Your task to perform on an android device: move a message to another label in the gmail app Image 0: 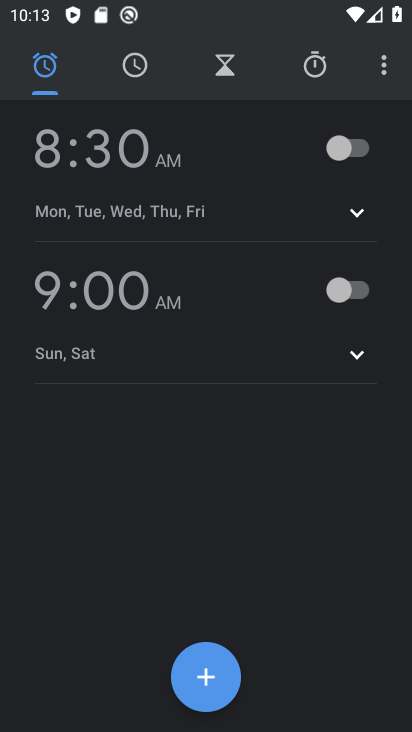
Step 0: press home button
Your task to perform on an android device: move a message to another label in the gmail app Image 1: 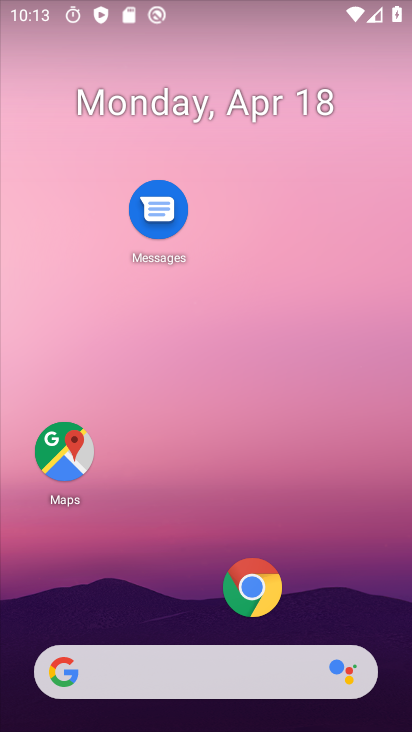
Step 1: drag from (191, 493) to (211, 3)
Your task to perform on an android device: move a message to another label in the gmail app Image 2: 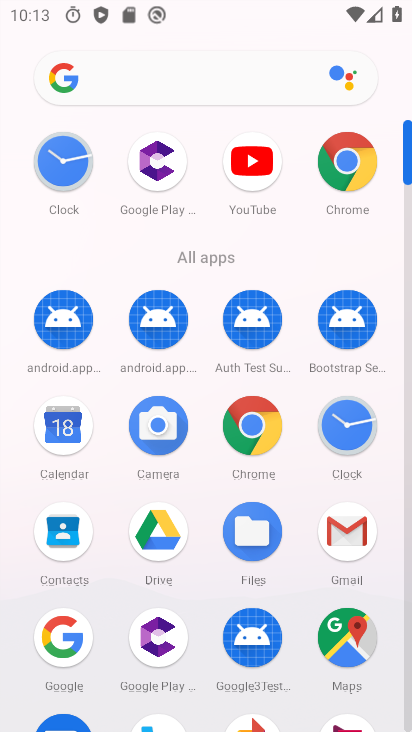
Step 2: click (337, 536)
Your task to perform on an android device: move a message to another label in the gmail app Image 3: 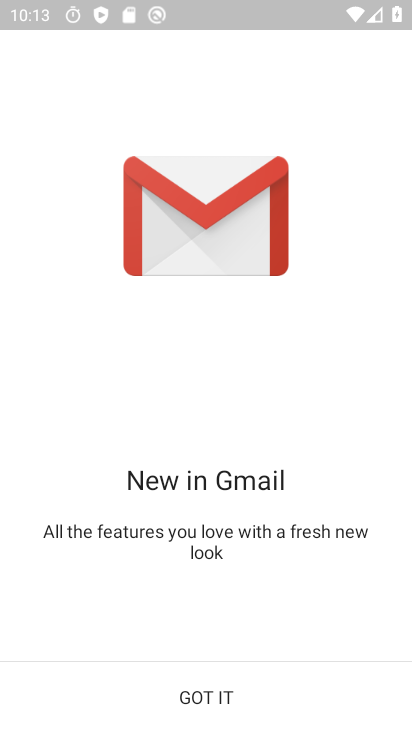
Step 3: click (192, 689)
Your task to perform on an android device: move a message to another label in the gmail app Image 4: 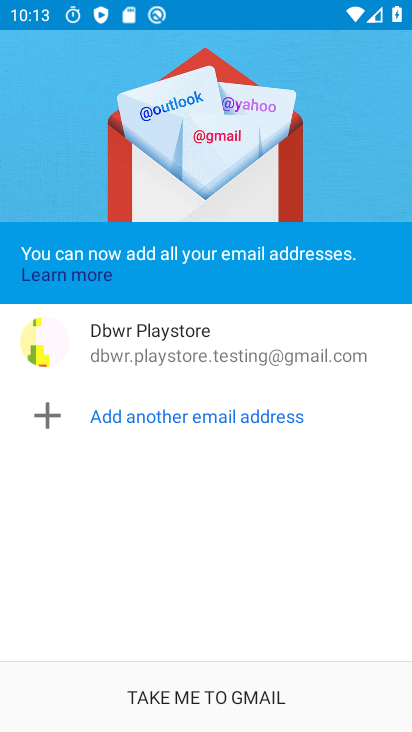
Step 4: click (190, 695)
Your task to perform on an android device: move a message to another label in the gmail app Image 5: 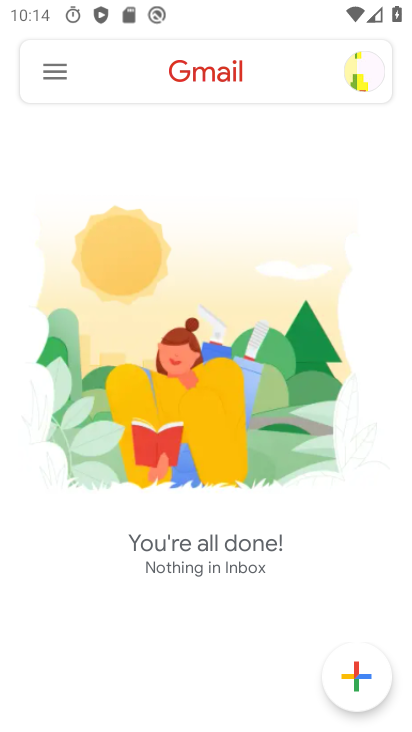
Step 5: click (54, 72)
Your task to perform on an android device: move a message to another label in the gmail app Image 6: 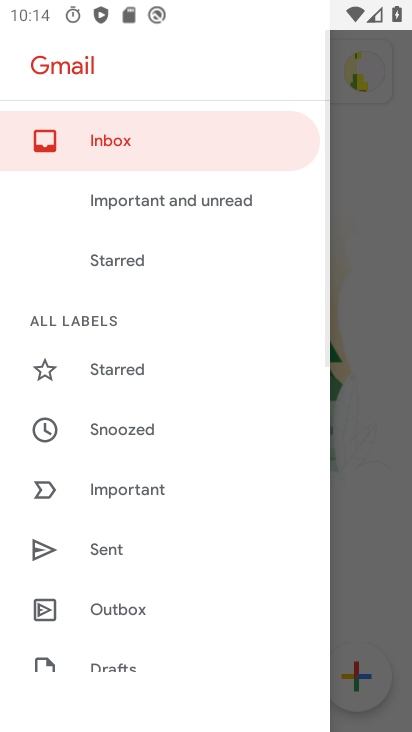
Step 6: drag from (109, 617) to (187, 242)
Your task to perform on an android device: move a message to another label in the gmail app Image 7: 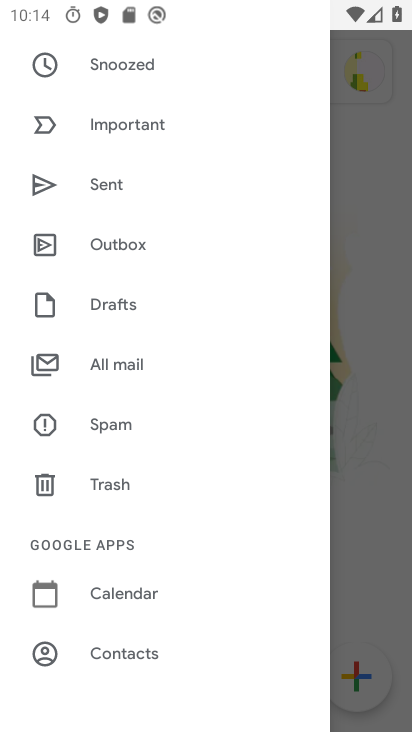
Step 7: click (124, 370)
Your task to perform on an android device: move a message to another label in the gmail app Image 8: 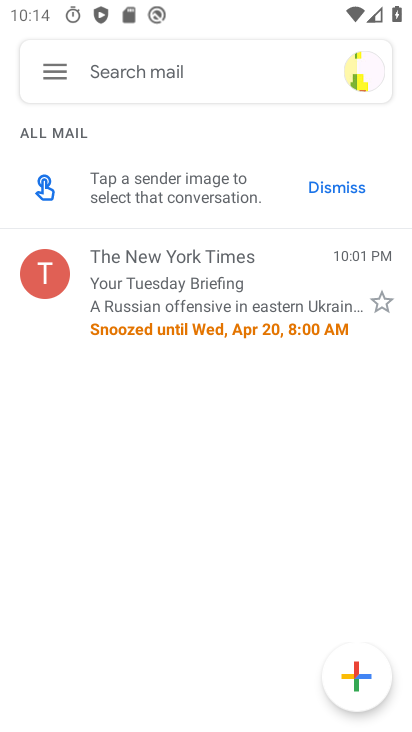
Step 8: click (49, 275)
Your task to perform on an android device: move a message to another label in the gmail app Image 9: 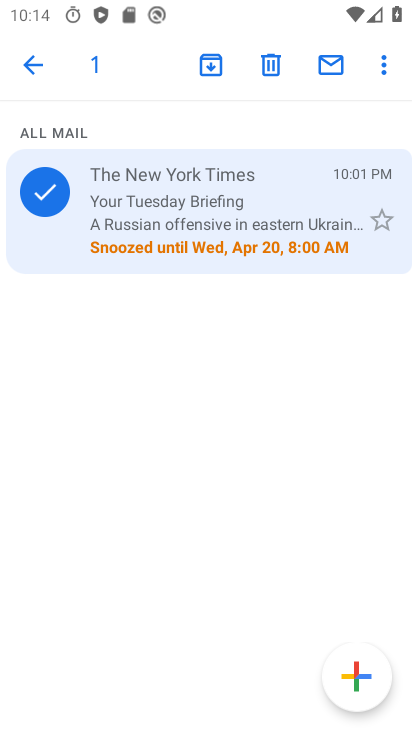
Step 9: click (383, 68)
Your task to perform on an android device: move a message to another label in the gmail app Image 10: 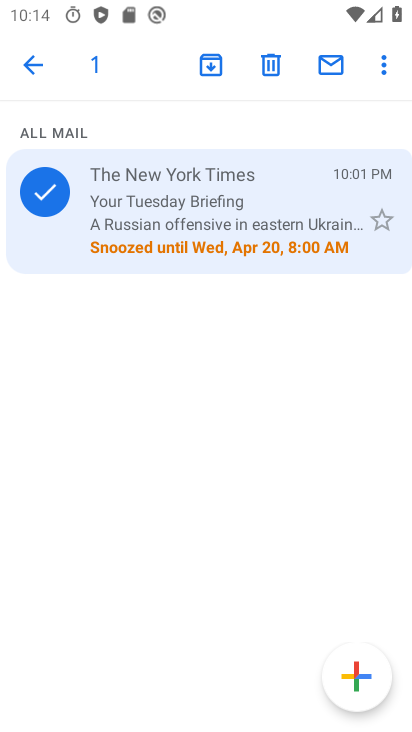
Step 10: click (383, 56)
Your task to perform on an android device: move a message to another label in the gmail app Image 11: 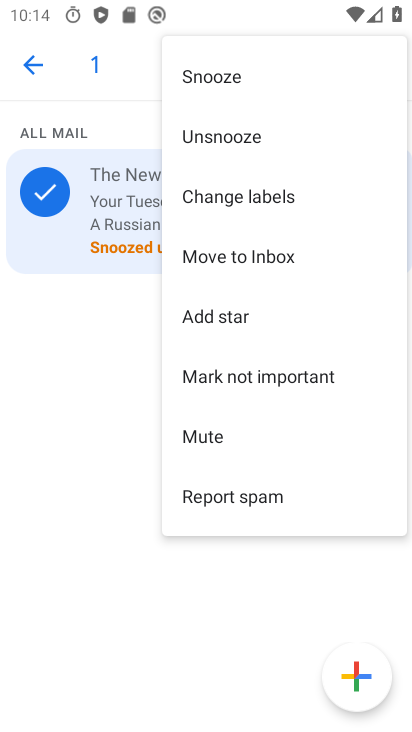
Step 11: click (271, 189)
Your task to perform on an android device: move a message to another label in the gmail app Image 12: 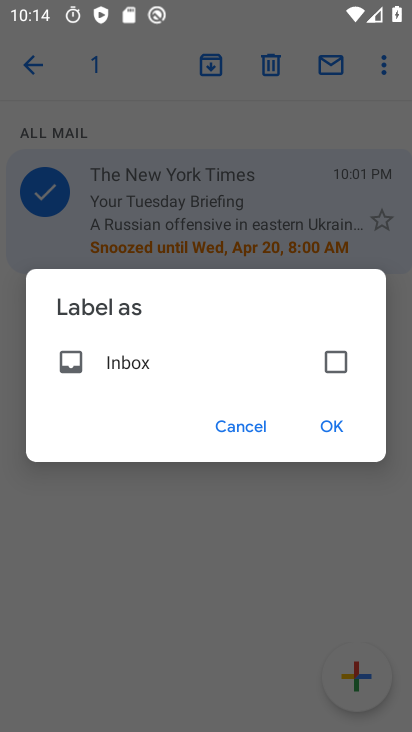
Step 12: click (332, 349)
Your task to perform on an android device: move a message to another label in the gmail app Image 13: 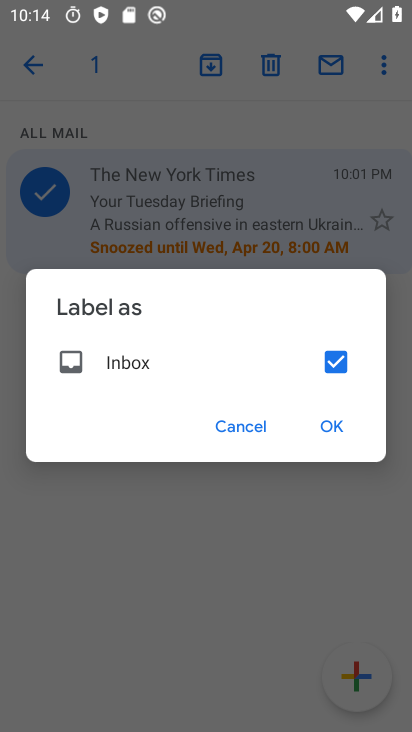
Step 13: click (331, 425)
Your task to perform on an android device: move a message to another label in the gmail app Image 14: 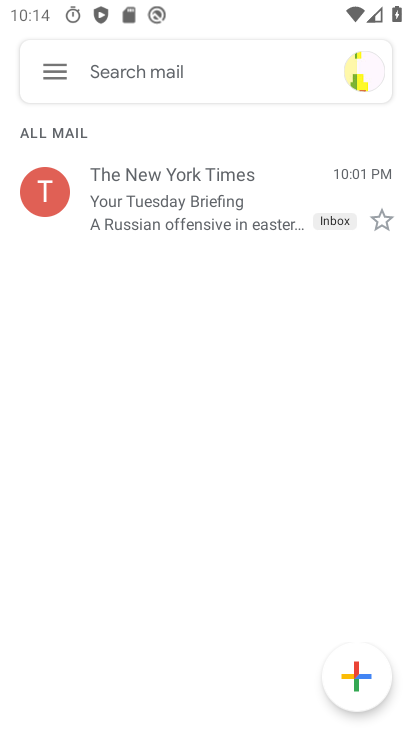
Step 14: task complete